Your task to perform on an android device: toggle translation in the chrome app Image 0: 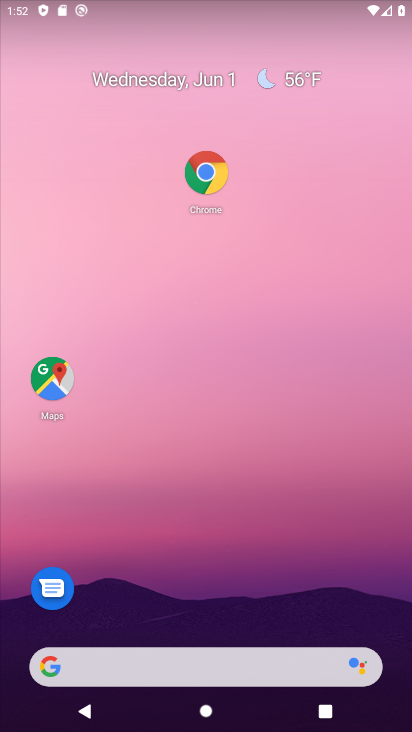
Step 0: click (213, 172)
Your task to perform on an android device: toggle translation in the chrome app Image 1: 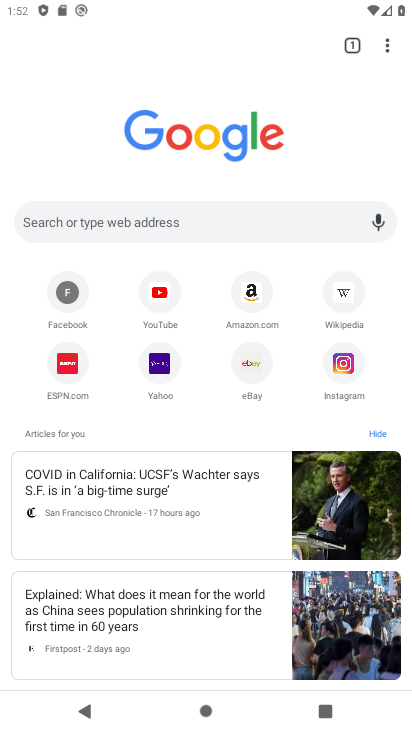
Step 1: click (382, 49)
Your task to perform on an android device: toggle translation in the chrome app Image 2: 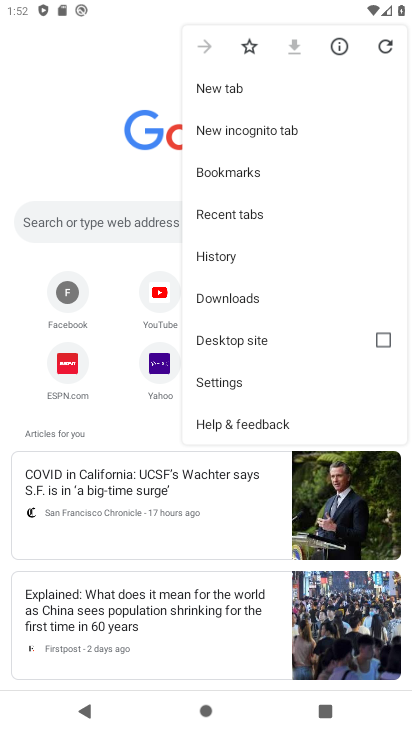
Step 2: click (245, 380)
Your task to perform on an android device: toggle translation in the chrome app Image 3: 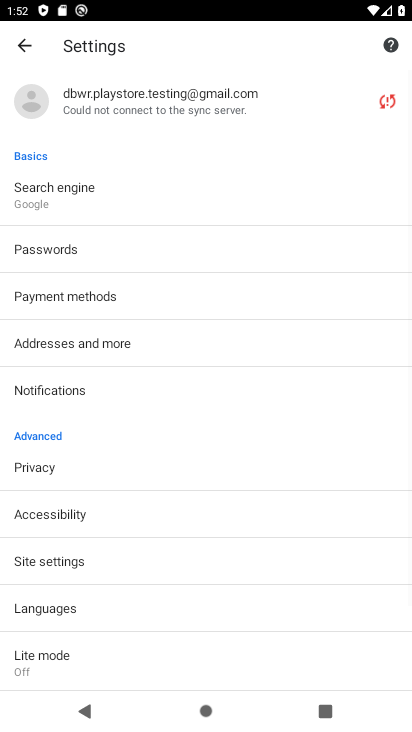
Step 3: click (150, 625)
Your task to perform on an android device: toggle translation in the chrome app Image 4: 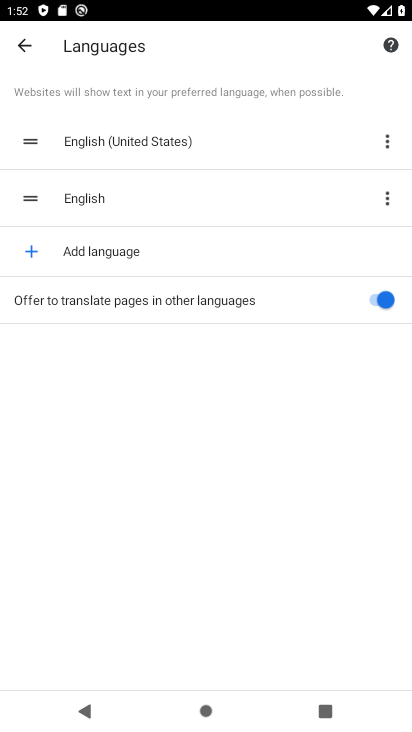
Step 4: click (375, 306)
Your task to perform on an android device: toggle translation in the chrome app Image 5: 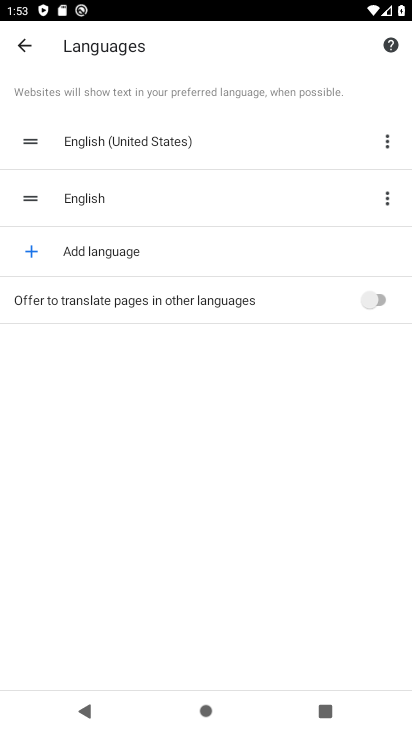
Step 5: task complete